Your task to perform on an android device: Open Youtube and go to "Your channel" Image 0: 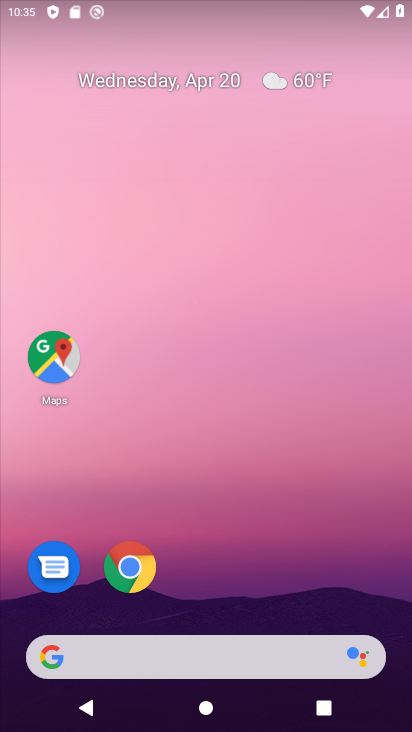
Step 0: drag from (321, 554) to (283, 130)
Your task to perform on an android device: Open Youtube and go to "Your channel" Image 1: 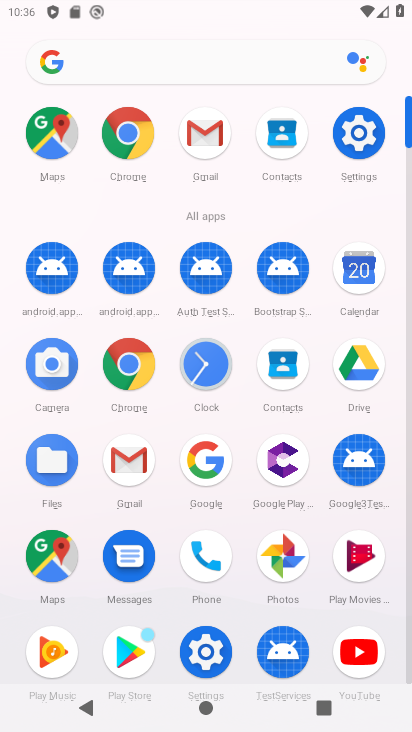
Step 1: click (369, 653)
Your task to perform on an android device: Open Youtube and go to "Your channel" Image 2: 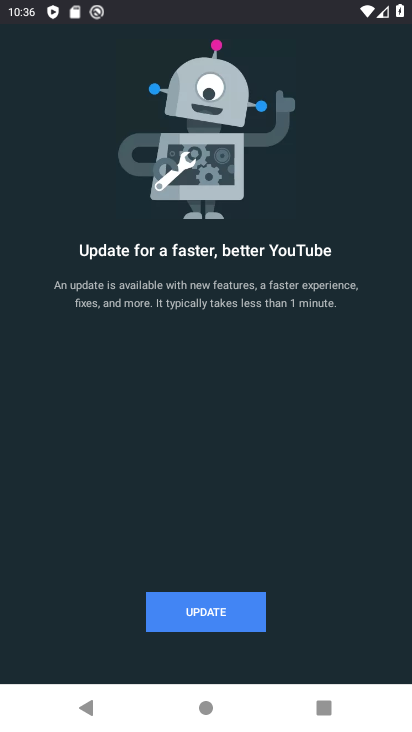
Step 2: click (241, 623)
Your task to perform on an android device: Open Youtube and go to "Your channel" Image 3: 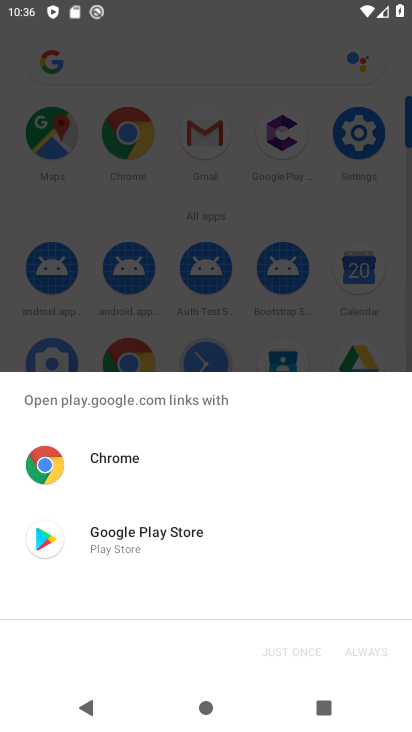
Step 3: click (154, 517)
Your task to perform on an android device: Open Youtube and go to "Your channel" Image 4: 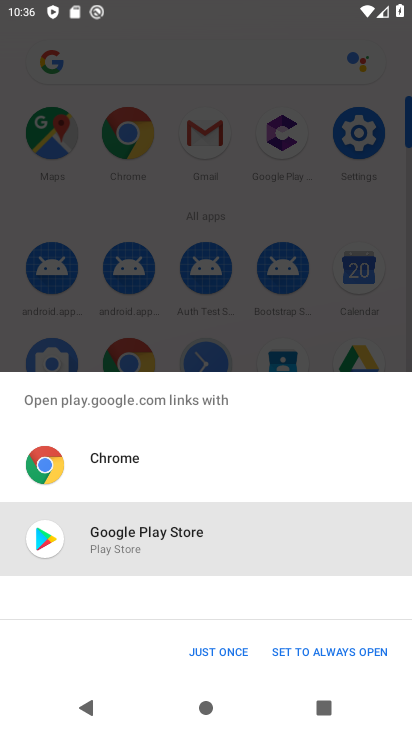
Step 4: click (233, 656)
Your task to perform on an android device: Open Youtube and go to "Your channel" Image 5: 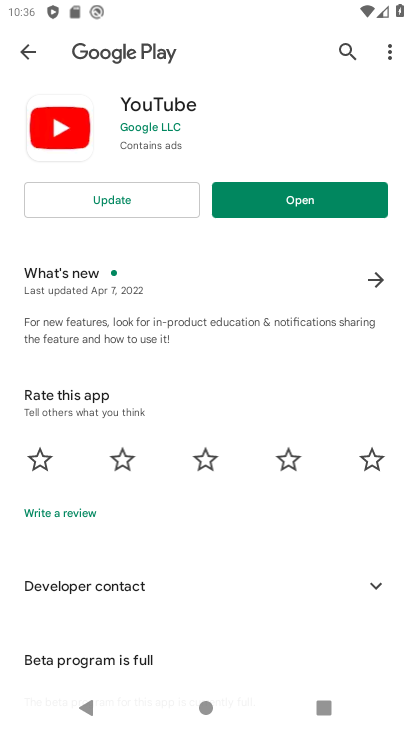
Step 5: click (138, 202)
Your task to perform on an android device: Open Youtube and go to "Your channel" Image 6: 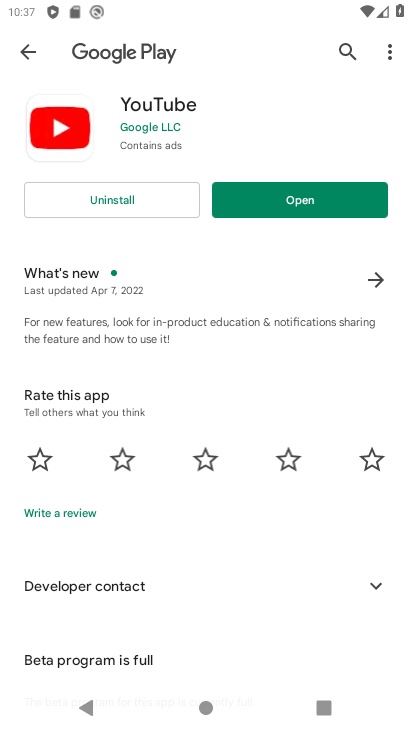
Step 6: click (301, 202)
Your task to perform on an android device: Open Youtube and go to "Your channel" Image 7: 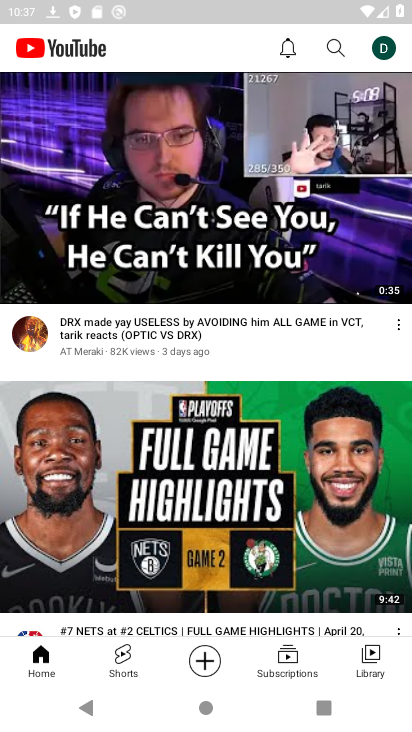
Step 7: click (387, 52)
Your task to perform on an android device: Open Youtube and go to "Your channel" Image 8: 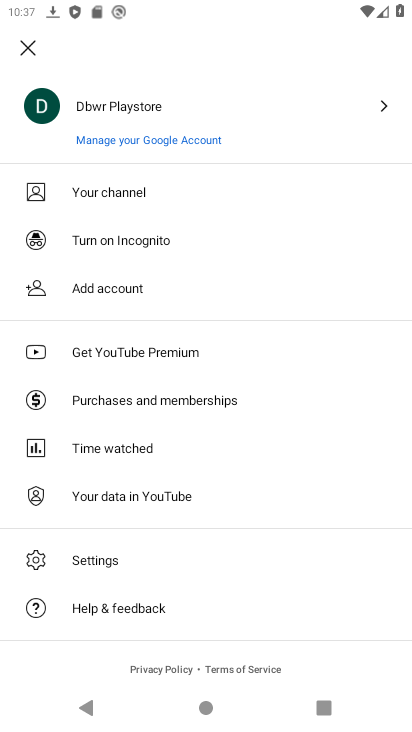
Step 8: click (109, 197)
Your task to perform on an android device: Open Youtube and go to "Your channel" Image 9: 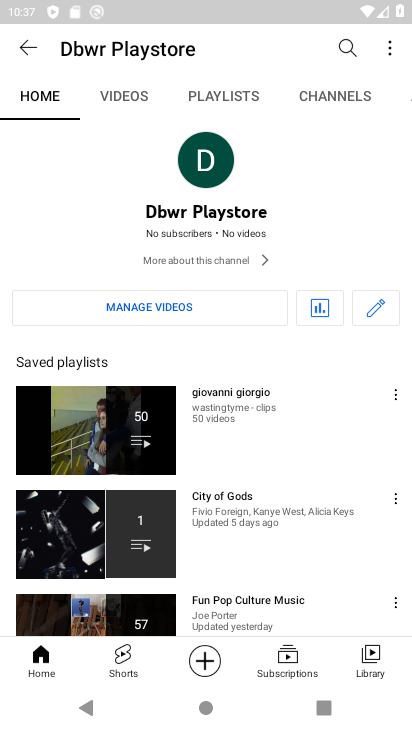
Step 9: task complete